Your task to perform on an android device: When is my next appointment? Image 0: 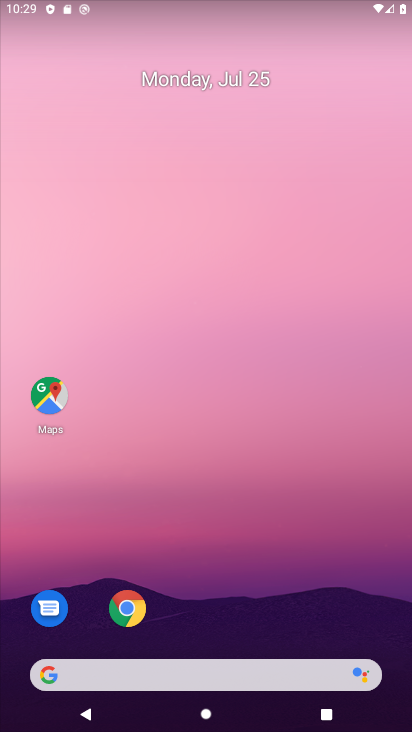
Step 0: drag from (303, 669) to (284, 287)
Your task to perform on an android device: When is my next appointment? Image 1: 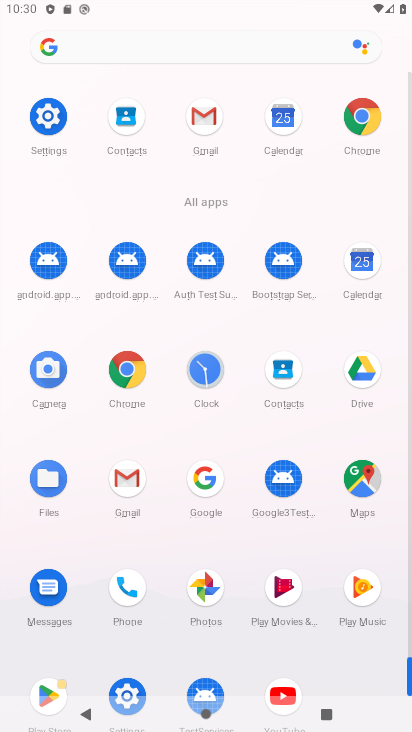
Step 1: click (359, 254)
Your task to perform on an android device: When is my next appointment? Image 2: 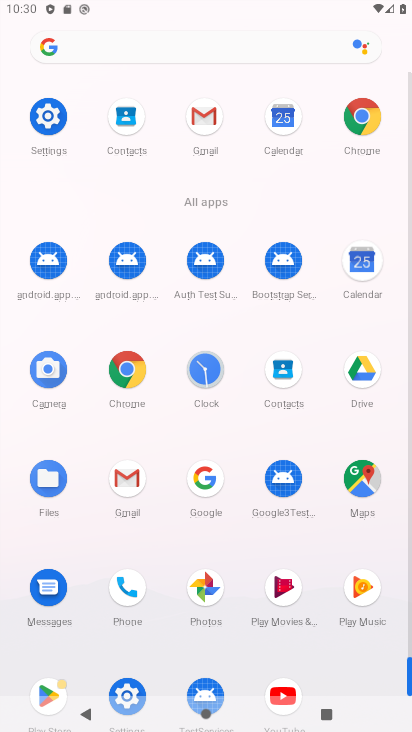
Step 2: click (360, 258)
Your task to perform on an android device: When is my next appointment? Image 3: 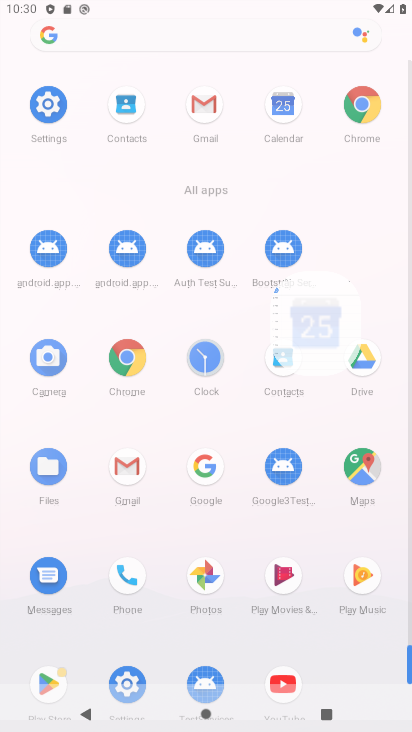
Step 3: click (378, 254)
Your task to perform on an android device: When is my next appointment? Image 4: 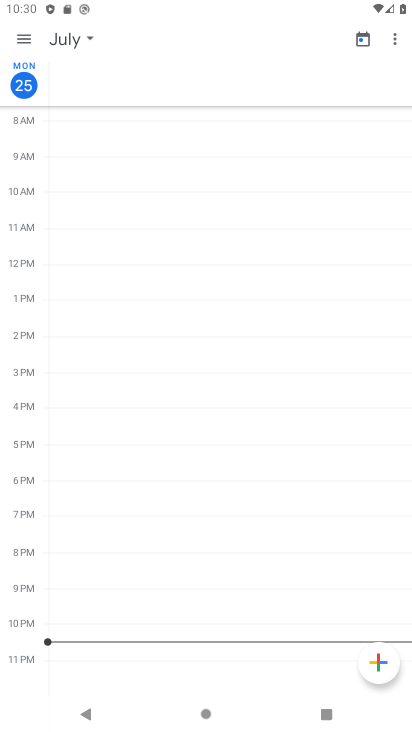
Step 4: click (82, 40)
Your task to perform on an android device: When is my next appointment? Image 5: 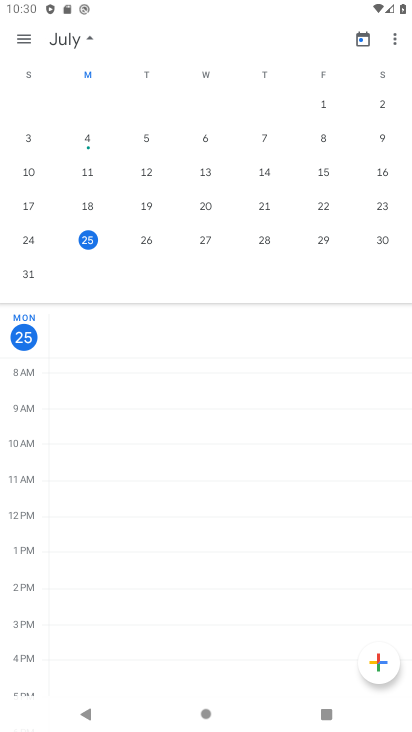
Step 5: click (326, 238)
Your task to perform on an android device: When is my next appointment? Image 6: 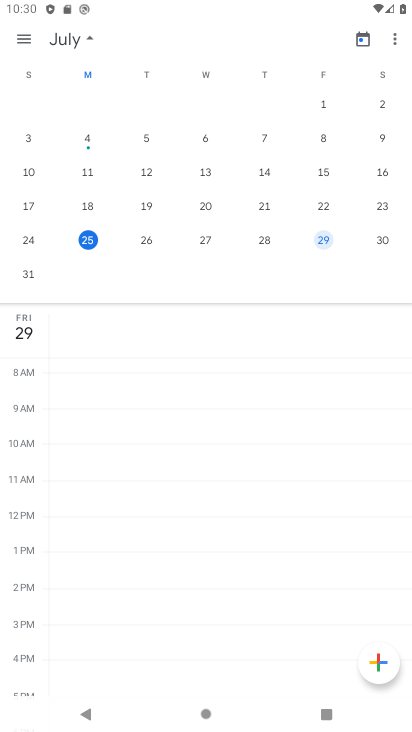
Step 6: click (325, 235)
Your task to perform on an android device: When is my next appointment? Image 7: 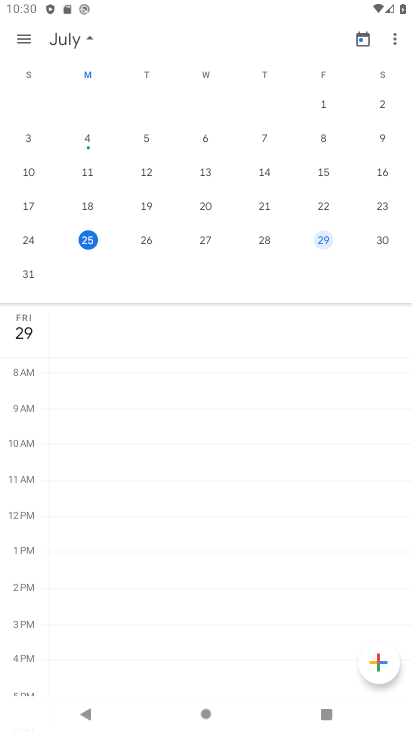
Step 7: click (323, 233)
Your task to perform on an android device: When is my next appointment? Image 8: 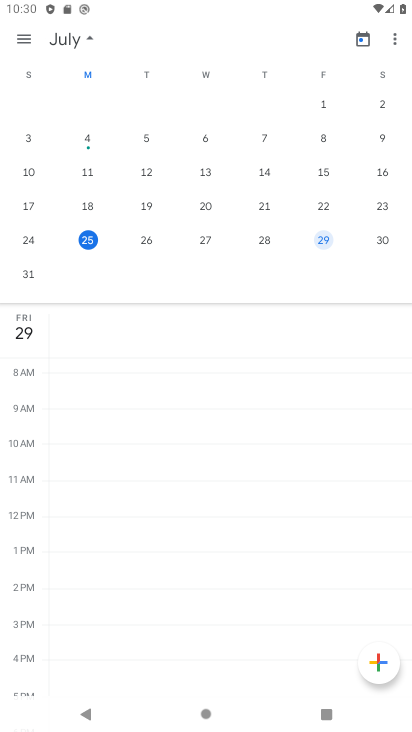
Step 8: task complete